Your task to perform on an android device: empty trash in the gmail app Image 0: 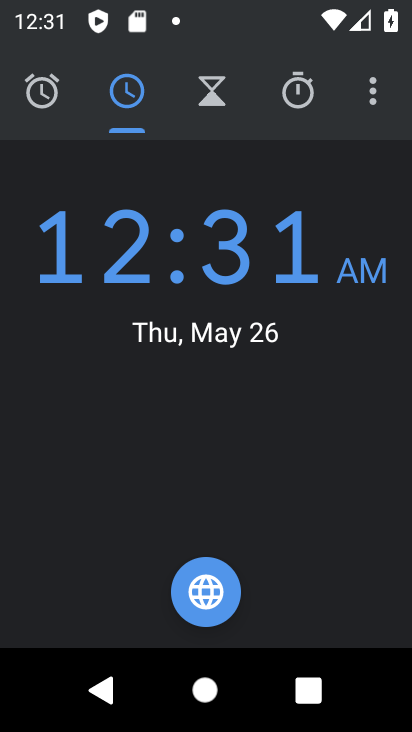
Step 0: press home button
Your task to perform on an android device: empty trash in the gmail app Image 1: 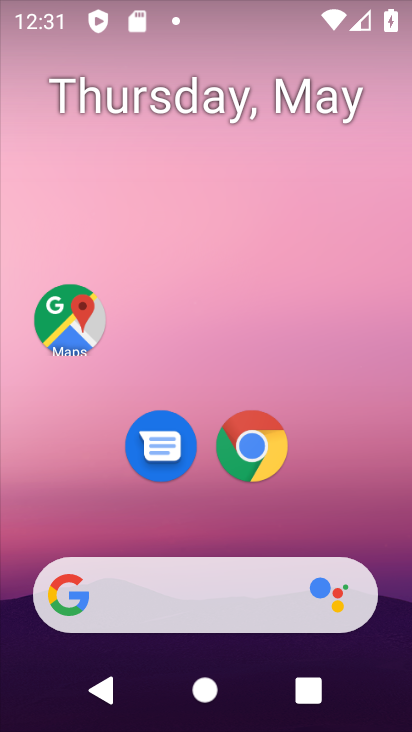
Step 1: drag from (355, 519) to (300, 120)
Your task to perform on an android device: empty trash in the gmail app Image 2: 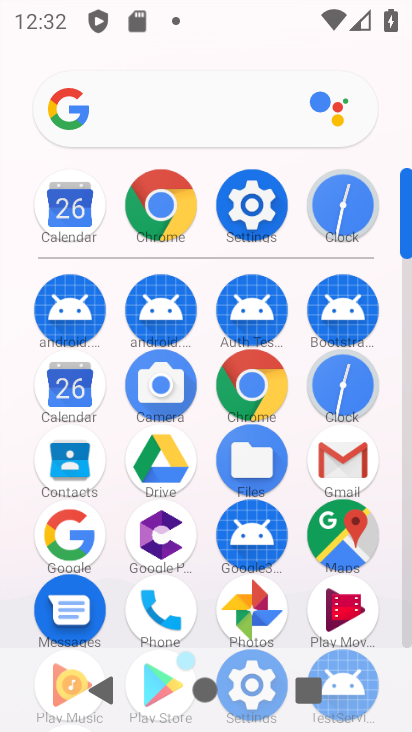
Step 2: click (345, 467)
Your task to perform on an android device: empty trash in the gmail app Image 3: 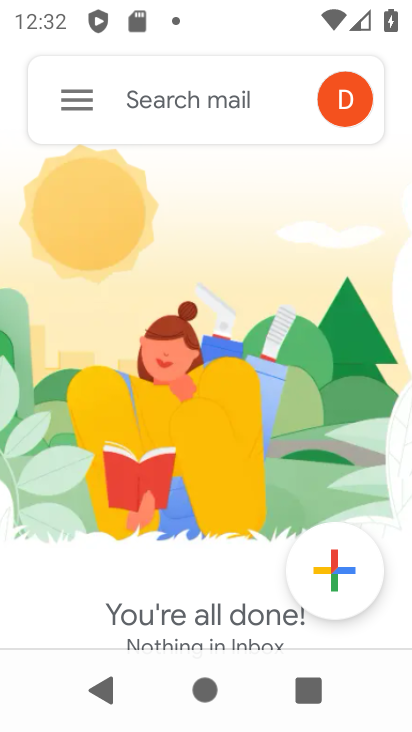
Step 3: click (93, 89)
Your task to perform on an android device: empty trash in the gmail app Image 4: 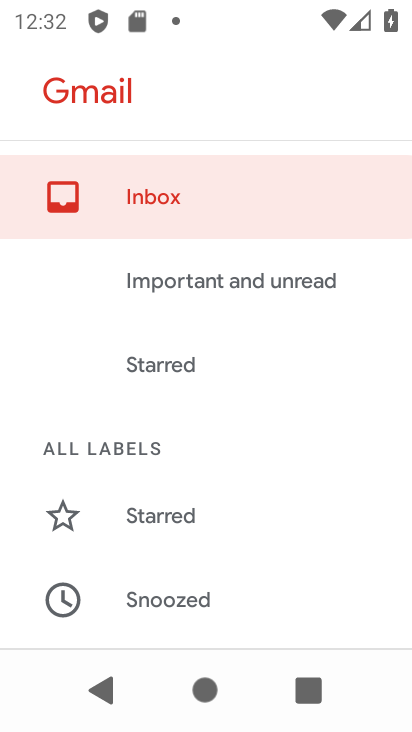
Step 4: drag from (290, 618) to (291, 207)
Your task to perform on an android device: empty trash in the gmail app Image 5: 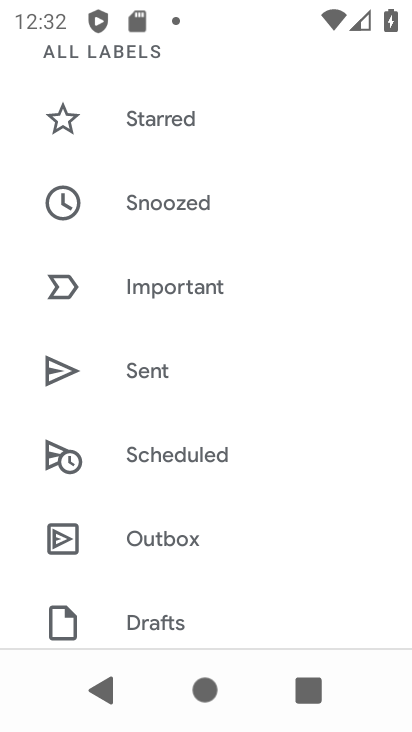
Step 5: drag from (325, 572) to (263, 212)
Your task to perform on an android device: empty trash in the gmail app Image 6: 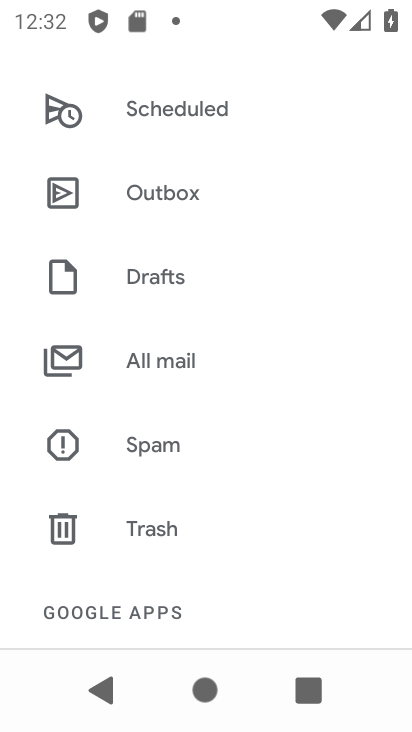
Step 6: click (194, 544)
Your task to perform on an android device: empty trash in the gmail app Image 7: 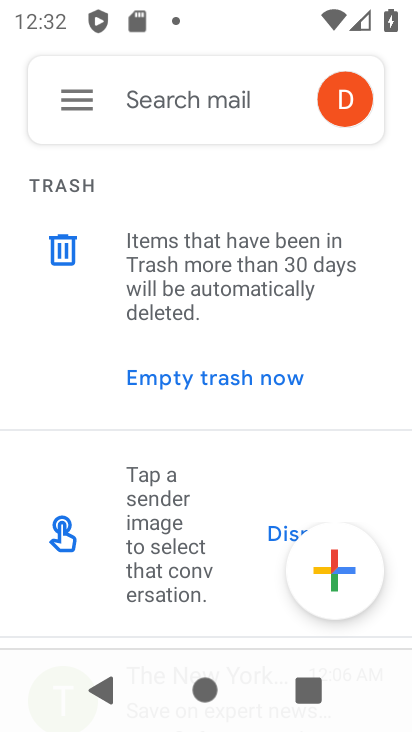
Step 7: click (65, 111)
Your task to perform on an android device: empty trash in the gmail app Image 8: 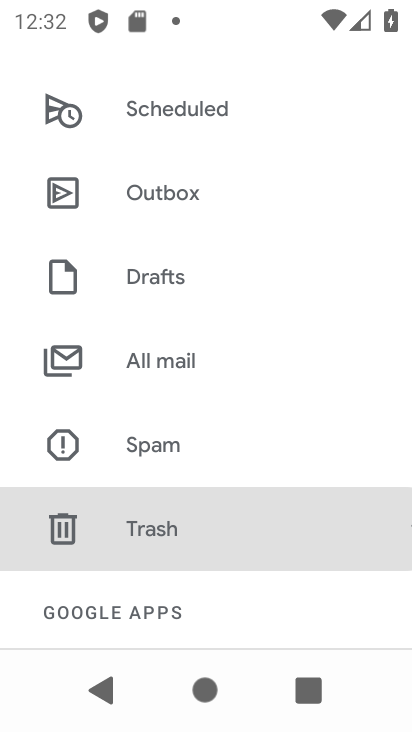
Step 8: click (157, 524)
Your task to perform on an android device: empty trash in the gmail app Image 9: 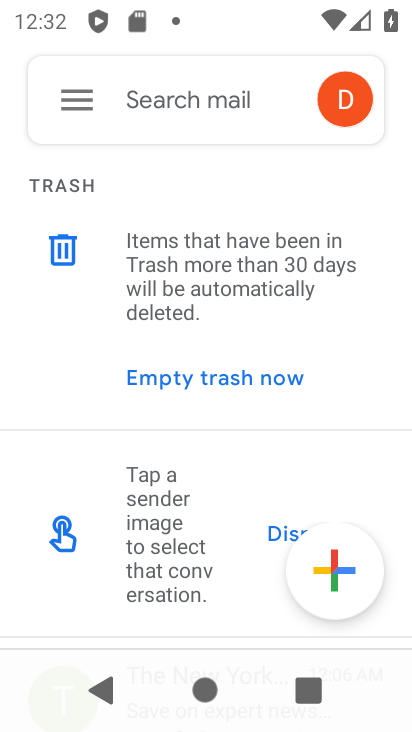
Step 9: click (199, 369)
Your task to perform on an android device: empty trash in the gmail app Image 10: 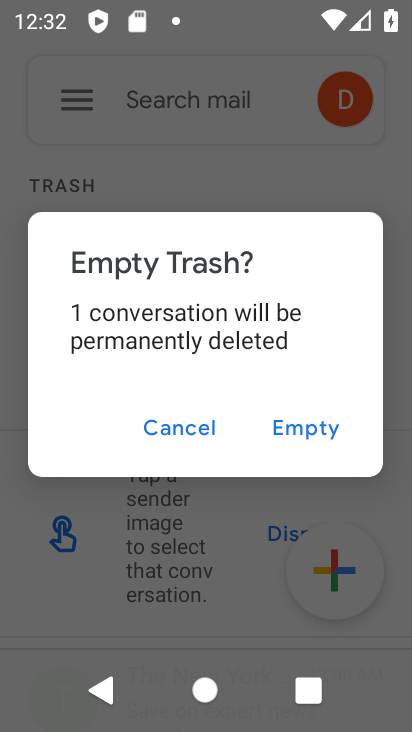
Step 10: click (319, 436)
Your task to perform on an android device: empty trash in the gmail app Image 11: 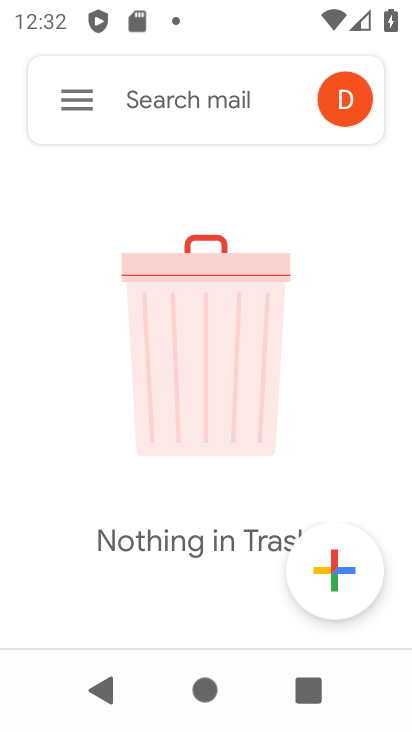
Step 11: task complete